Your task to perform on an android device: toggle javascript in the chrome app Image 0: 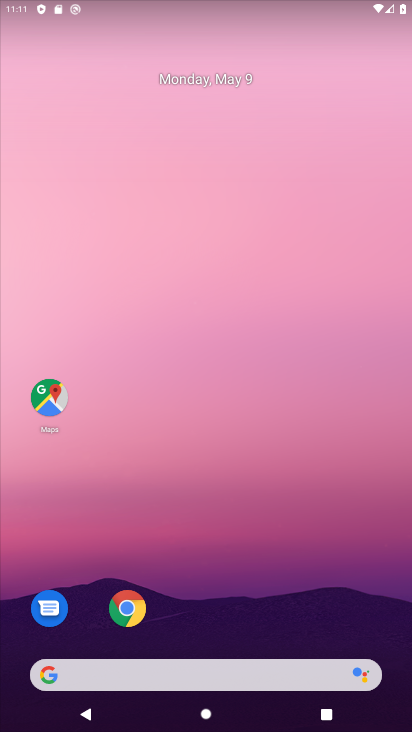
Step 0: click (127, 608)
Your task to perform on an android device: toggle javascript in the chrome app Image 1: 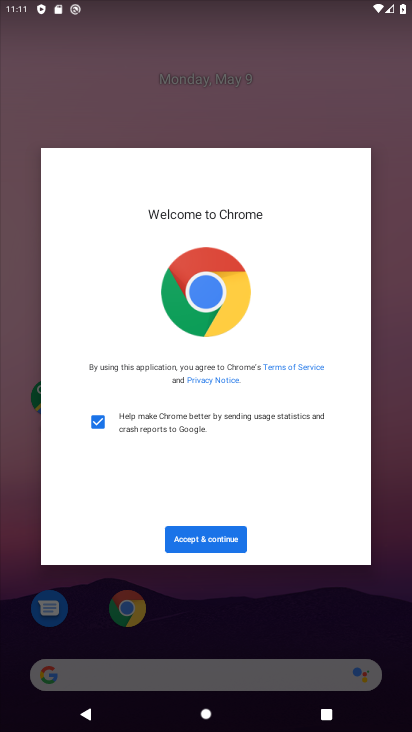
Step 1: click (202, 537)
Your task to perform on an android device: toggle javascript in the chrome app Image 2: 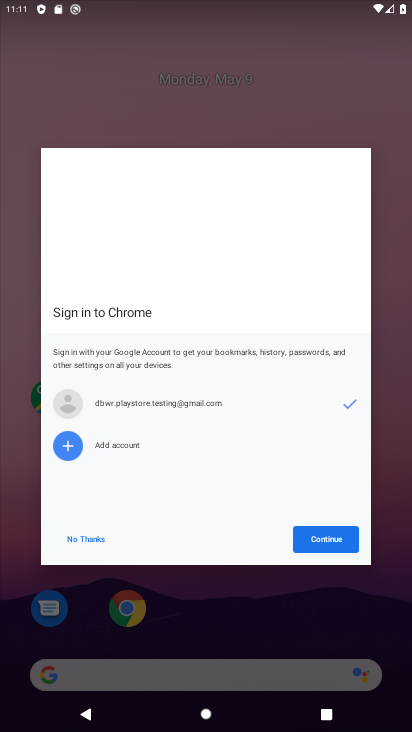
Step 2: click (89, 541)
Your task to perform on an android device: toggle javascript in the chrome app Image 3: 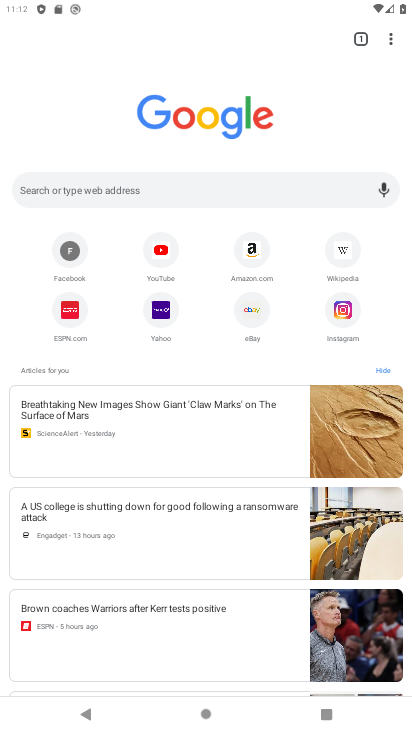
Step 3: click (390, 44)
Your task to perform on an android device: toggle javascript in the chrome app Image 4: 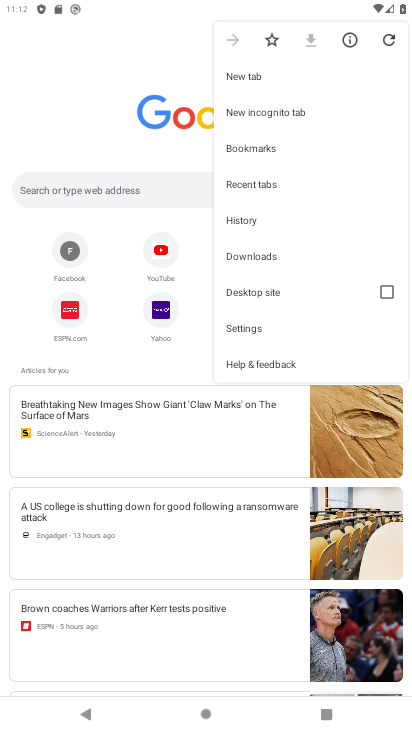
Step 4: click (254, 328)
Your task to perform on an android device: toggle javascript in the chrome app Image 5: 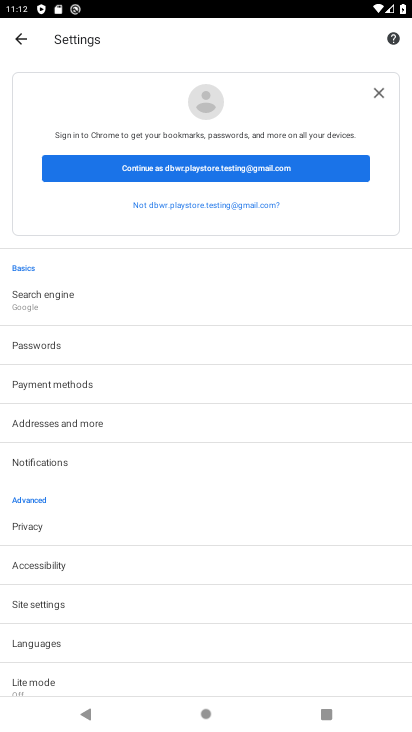
Step 5: click (91, 607)
Your task to perform on an android device: toggle javascript in the chrome app Image 6: 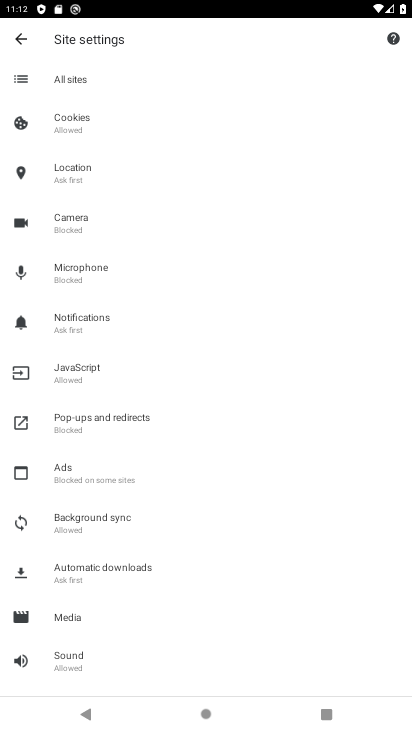
Step 6: click (126, 367)
Your task to perform on an android device: toggle javascript in the chrome app Image 7: 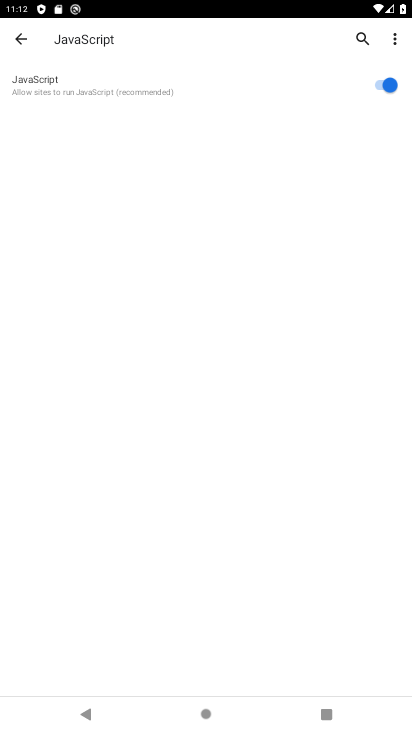
Step 7: click (393, 90)
Your task to perform on an android device: toggle javascript in the chrome app Image 8: 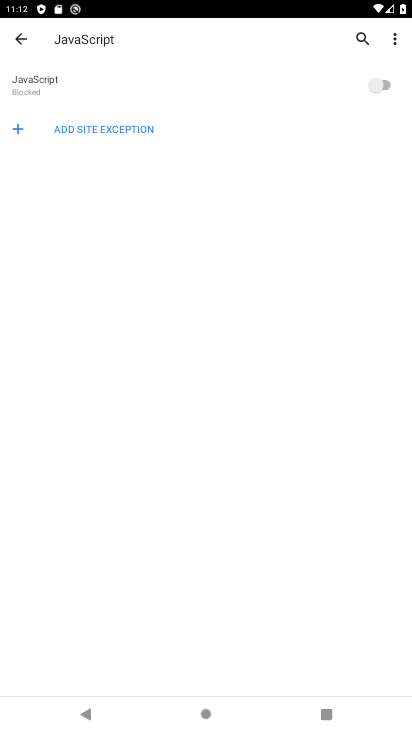
Step 8: task complete